Your task to perform on an android device: Open Android settings Image 0: 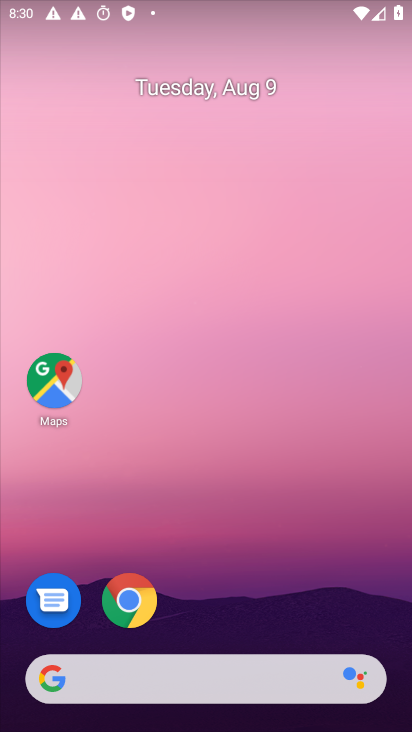
Step 0: press home button
Your task to perform on an android device: Open Android settings Image 1: 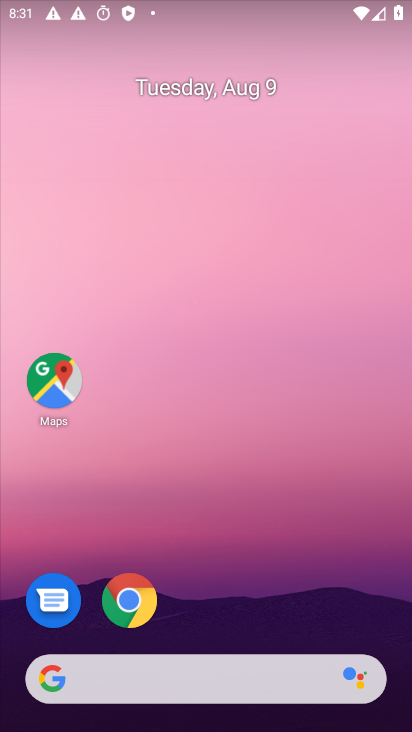
Step 1: drag from (193, 621) to (174, 10)
Your task to perform on an android device: Open Android settings Image 2: 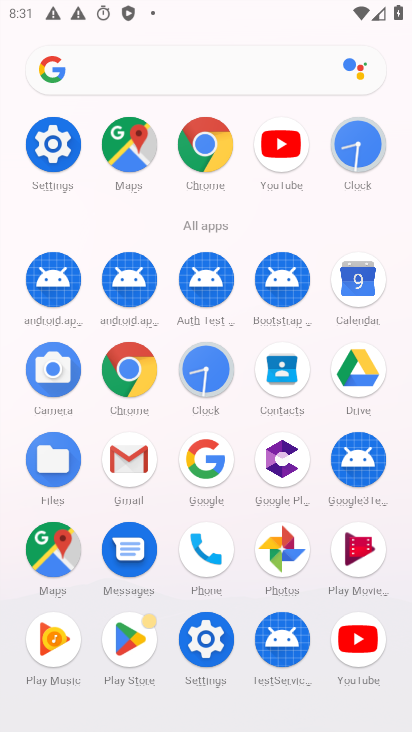
Step 2: click (47, 147)
Your task to perform on an android device: Open Android settings Image 3: 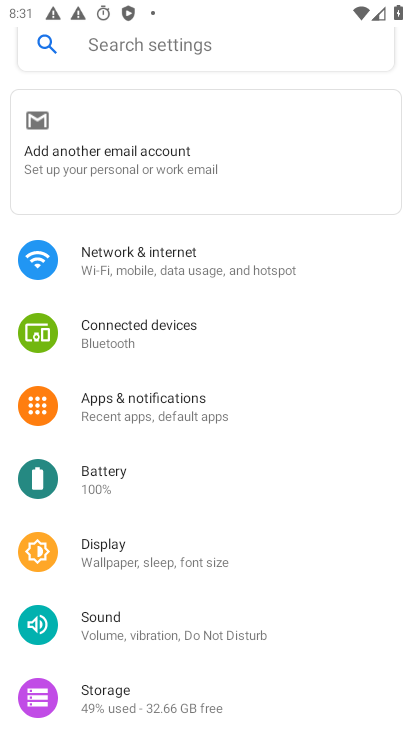
Step 3: task complete